Your task to perform on an android device: Go to accessibility settings Image 0: 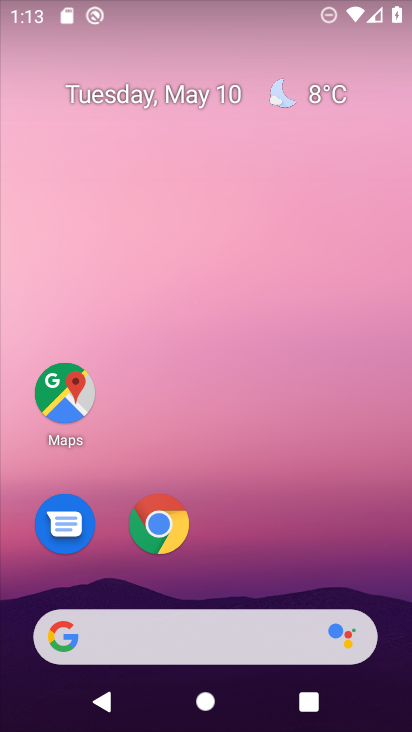
Step 0: drag from (314, 536) to (270, 59)
Your task to perform on an android device: Go to accessibility settings Image 1: 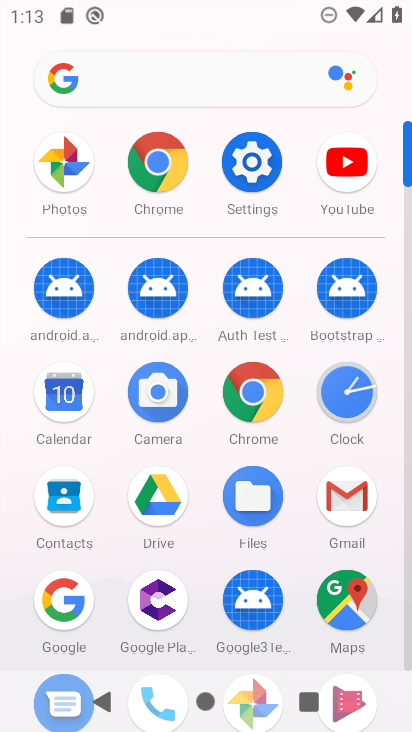
Step 1: click (253, 158)
Your task to perform on an android device: Go to accessibility settings Image 2: 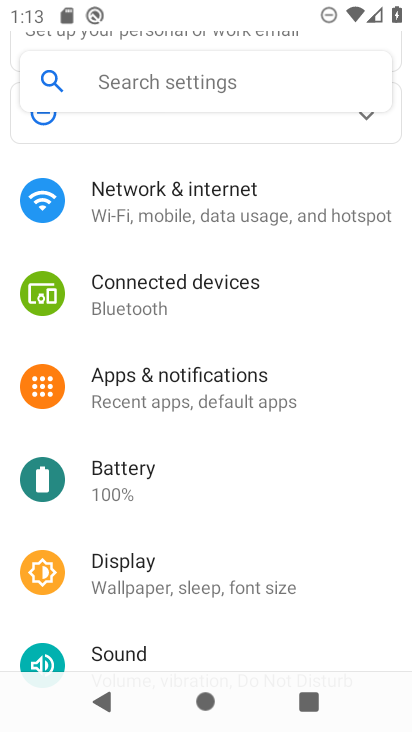
Step 2: drag from (200, 525) to (160, 138)
Your task to perform on an android device: Go to accessibility settings Image 3: 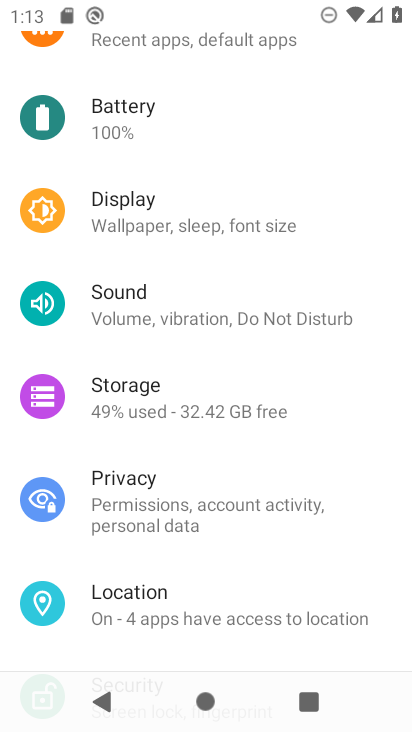
Step 3: drag from (219, 534) to (214, 182)
Your task to perform on an android device: Go to accessibility settings Image 4: 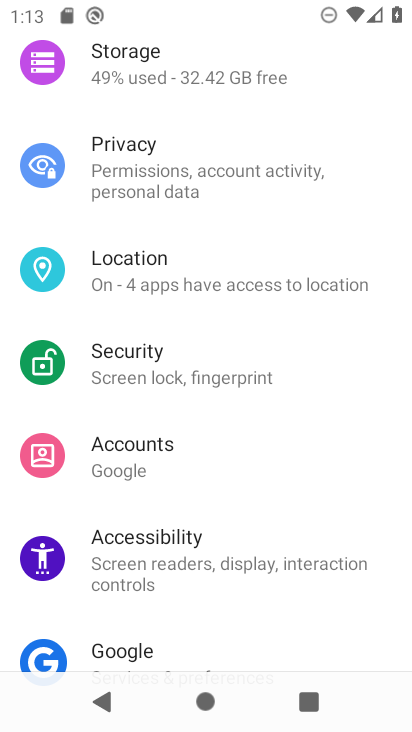
Step 4: click (195, 560)
Your task to perform on an android device: Go to accessibility settings Image 5: 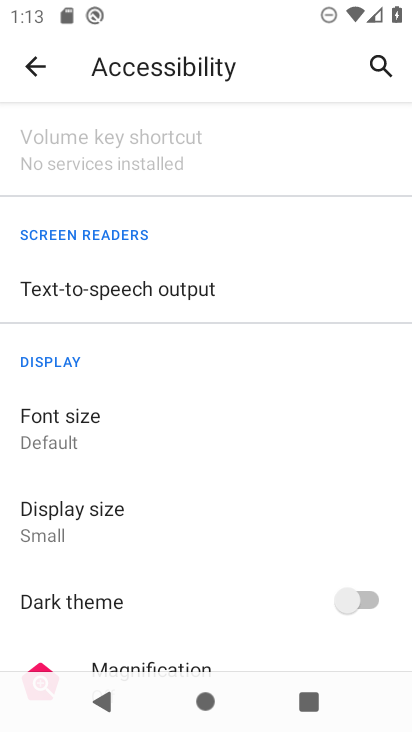
Step 5: task complete